Your task to perform on an android device: turn on showing notifications on the lock screen Image 0: 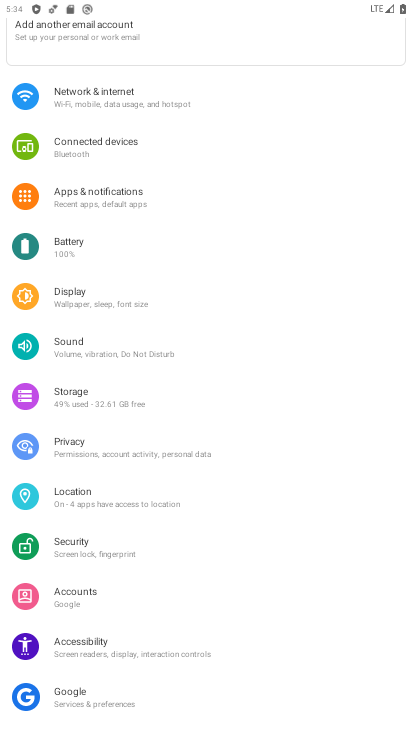
Step 0: press home button
Your task to perform on an android device: turn on showing notifications on the lock screen Image 1: 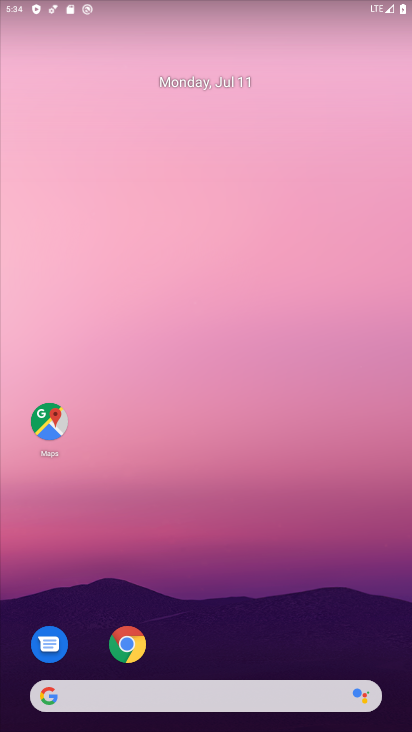
Step 1: drag from (227, 638) to (283, 33)
Your task to perform on an android device: turn on showing notifications on the lock screen Image 2: 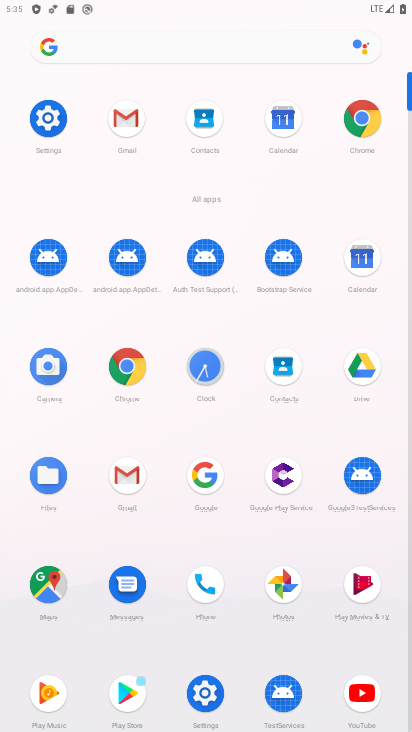
Step 2: click (49, 123)
Your task to perform on an android device: turn on showing notifications on the lock screen Image 3: 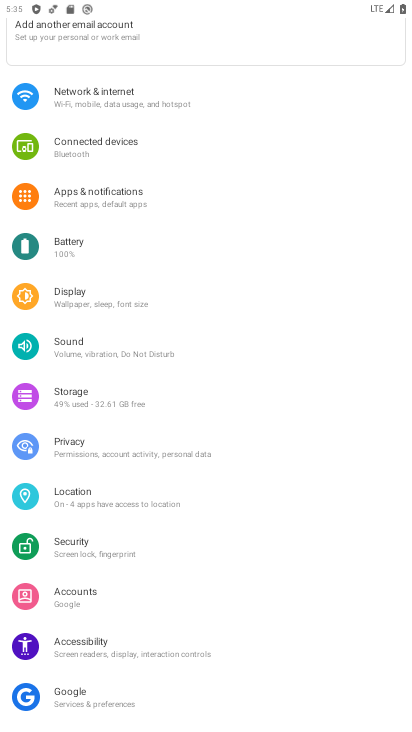
Step 3: click (107, 201)
Your task to perform on an android device: turn on showing notifications on the lock screen Image 4: 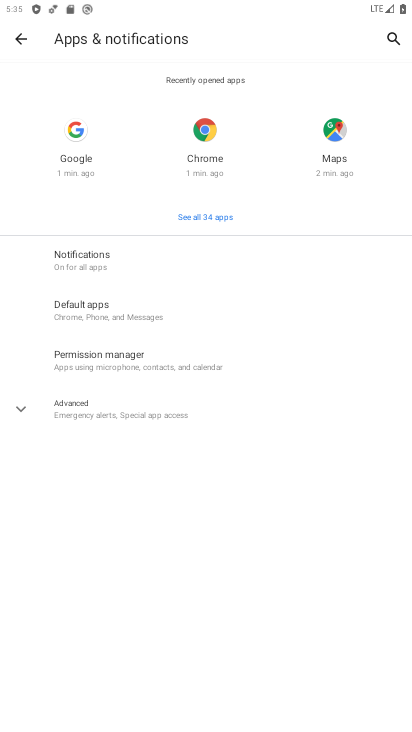
Step 4: click (106, 258)
Your task to perform on an android device: turn on showing notifications on the lock screen Image 5: 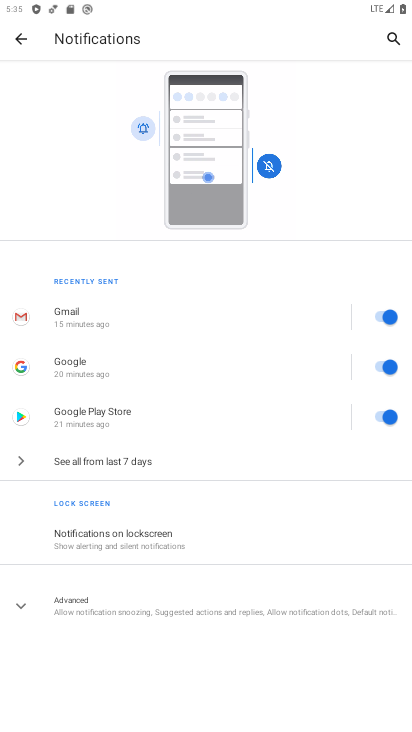
Step 5: click (189, 548)
Your task to perform on an android device: turn on showing notifications on the lock screen Image 6: 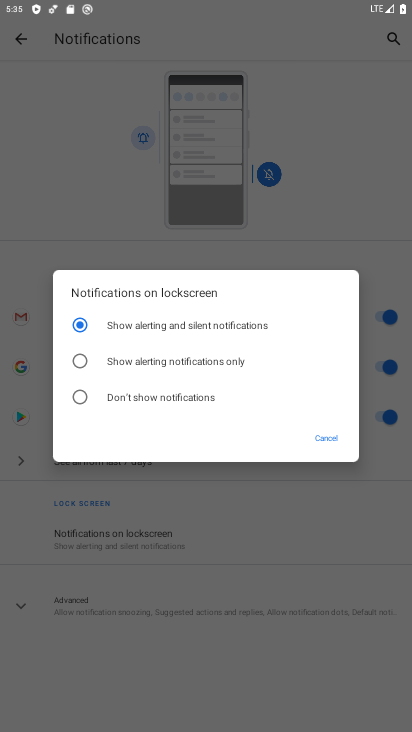
Step 6: task complete